Your task to perform on an android device: uninstall "Etsy: Buy & Sell Unique Items" Image 0: 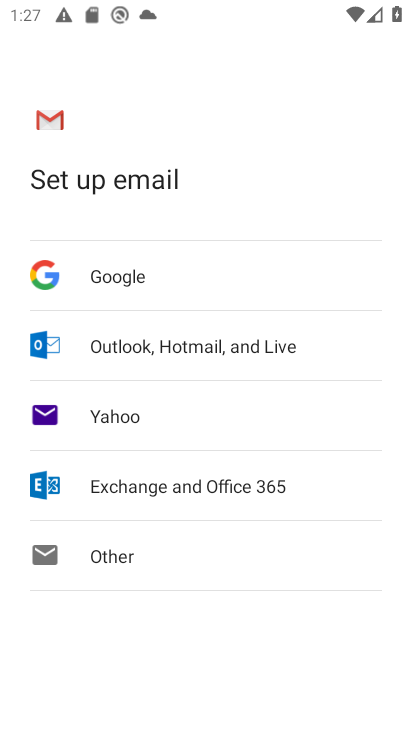
Step 0: press home button
Your task to perform on an android device: uninstall "Etsy: Buy & Sell Unique Items" Image 1: 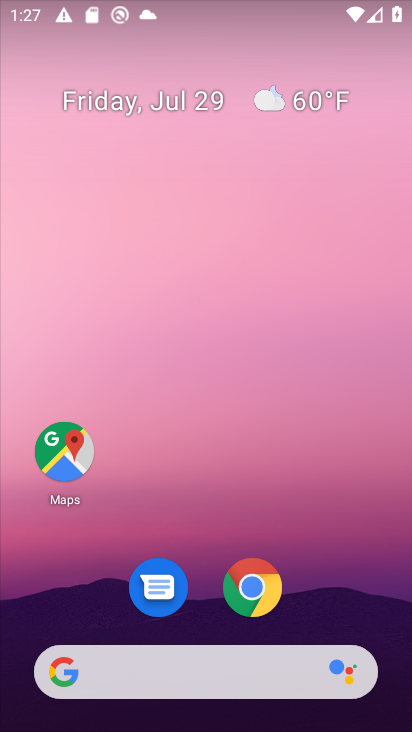
Step 1: drag from (122, 663) to (179, 89)
Your task to perform on an android device: uninstall "Etsy: Buy & Sell Unique Items" Image 2: 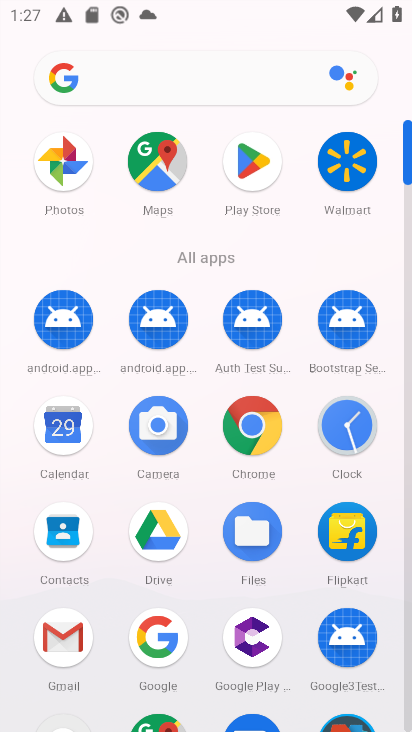
Step 2: click (260, 155)
Your task to perform on an android device: uninstall "Etsy: Buy & Sell Unique Items" Image 3: 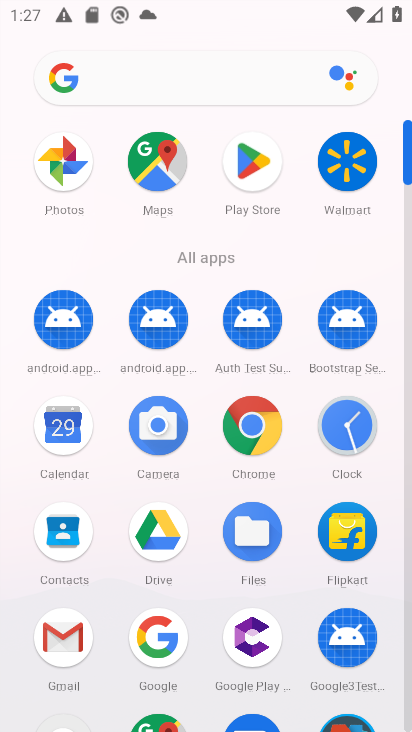
Step 3: click (260, 155)
Your task to perform on an android device: uninstall "Etsy: Buy & Sell Unique Items" Image 4: 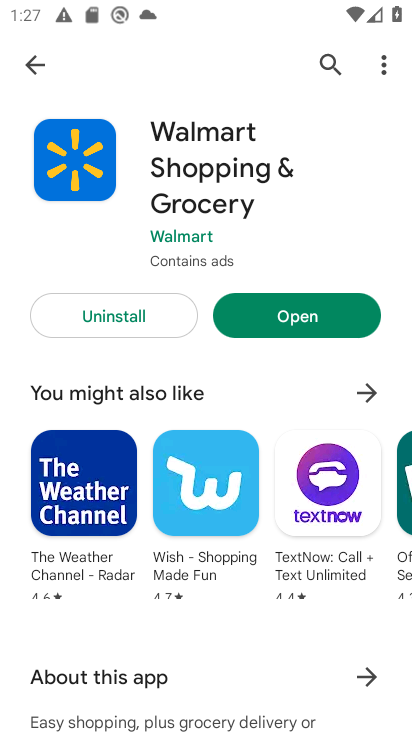
Step 4: click (326, 60)
Your task to perform on an android device: uninstall "Etsy: Buy & Sell Unique Items" Image 5: 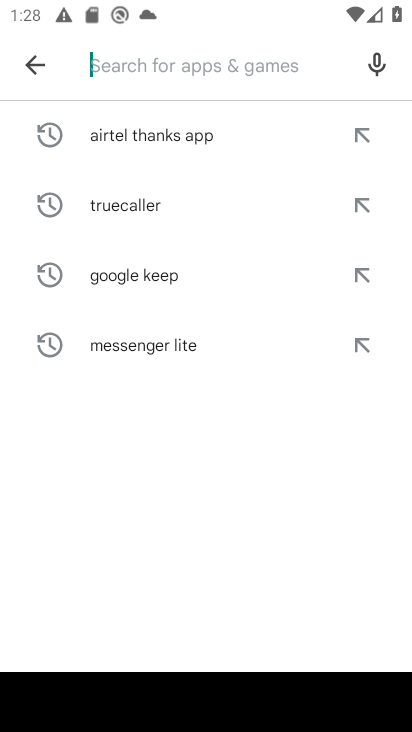
Step 5: type "Etsy: Buy & Sell Unique Items"
Your task to perform on an android device: uninstall "Etsy: Buy & Sell Unique Items" Image 6: 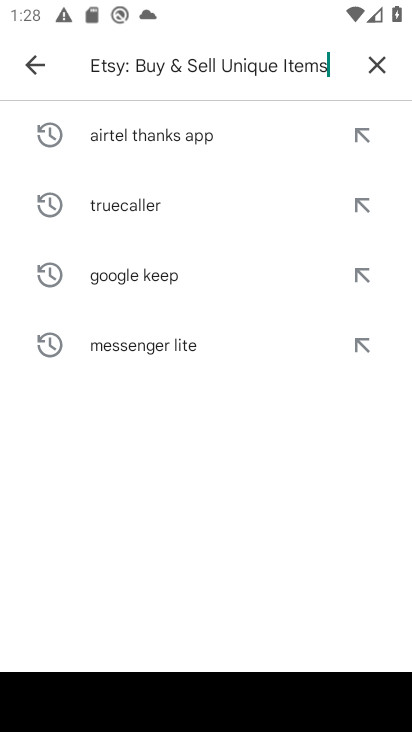
Step 6: type ""
Your task to perform on an android device: uninstall "Etsy: Buy & Sell Unique Items" Image 7: 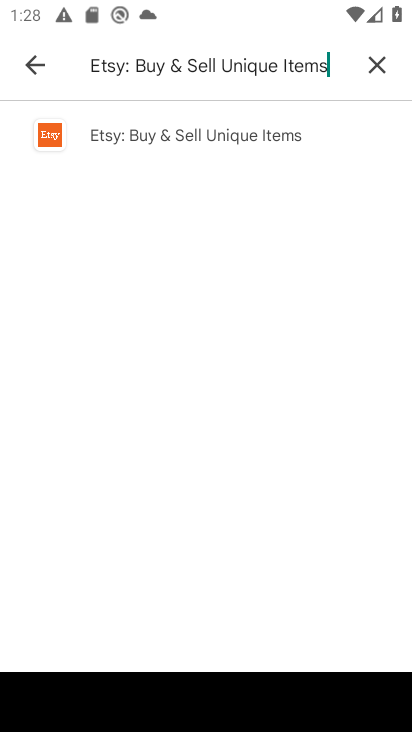
Step 7: click (193, 116)
Your task to perform on an android device: uninstall "Etsy: Buy & Sell Unique Items" Image 8: 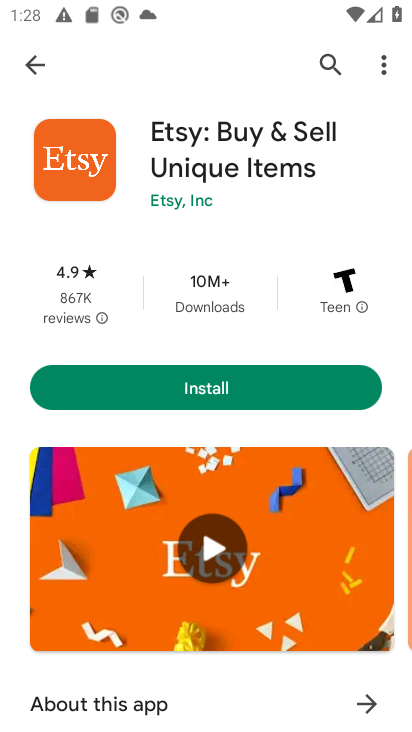
Step 8: task complete